Your task to perform on an android device: Open the calendar and show me this week's events? Image 0: 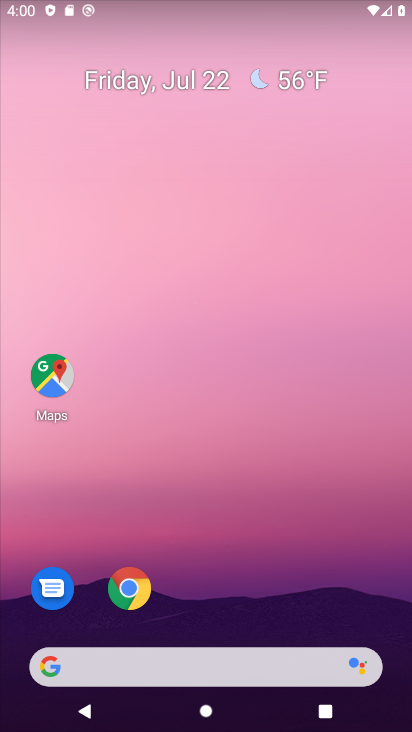
Step 0: drag from (233, 622) to (233, 111)
Your task to perform on an android device: Open the calendar and show me this week's events? Image 1: 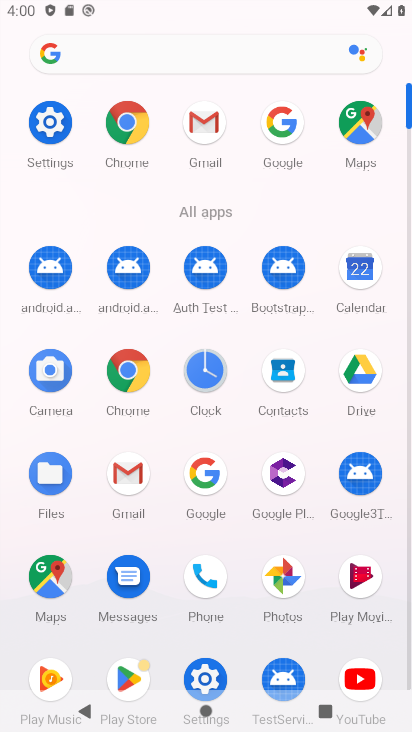
Step 1: click (354, 259)
Your task to perform on an android device: Open the calendar and show me this week's events? Image 2: 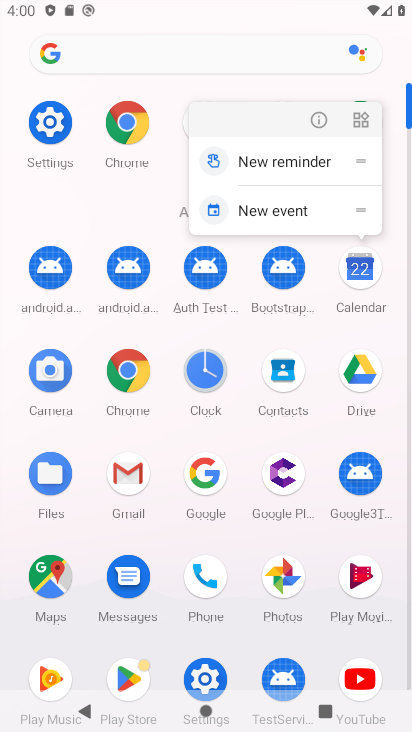
Step 2: click (351, 280)
Your task to perform on an android device: Open the calendar and show me this week's events? Image 3: 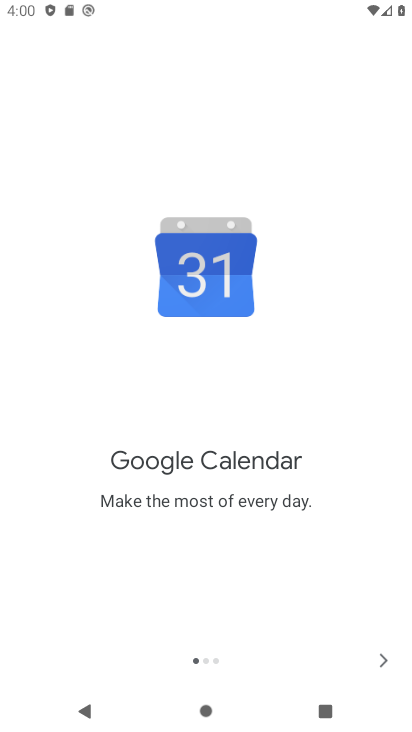
Step 3: click (374, 667)
Your task to perform on an android device: Open the calendar and show me this week's events? Image 4: 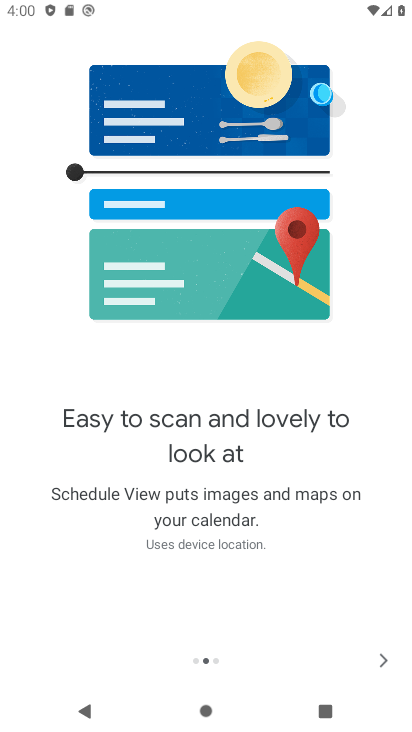
Step 4: click (374, 667)
Your task to perform on an android device: Open the calendar and show me this week's events? Image 5: 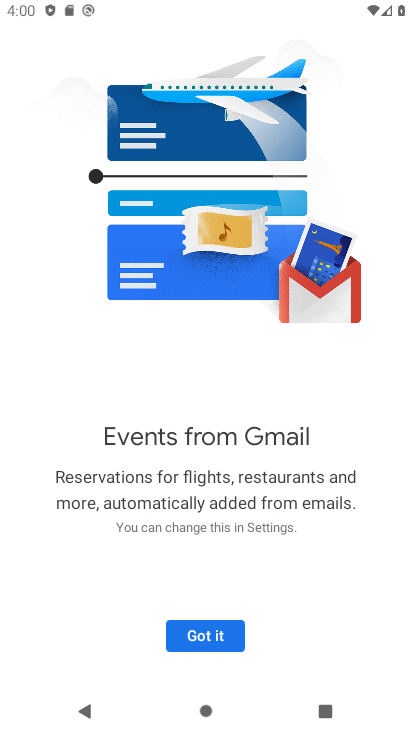
Step 5: click (204, 647)
Your task to perform on an android device: Open the calendar and show me this week's events? Image 6: 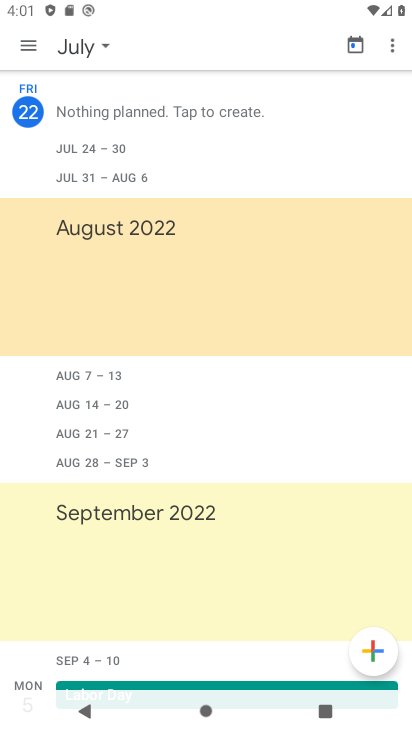
Step 6: click (107, 66)
Your task to perform on an android device: Open the calendar and show me this week's events? Image 7: 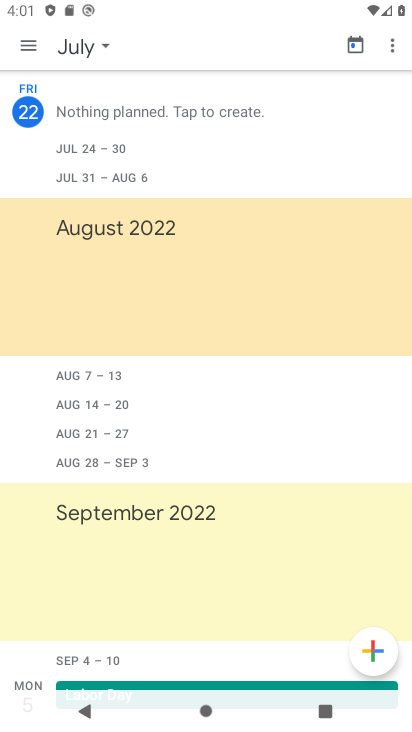
Step 7: click (91, 43)
Your task to perform on an android device: Open the calendar and show me this week's events? Image 8: 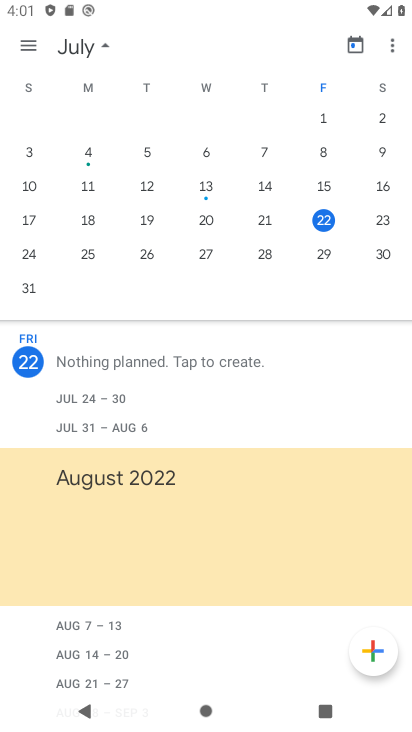
Step 8: click (370, 214)
Your task to perform on an android device: Open the calendar and show me this week's events? Image 9: 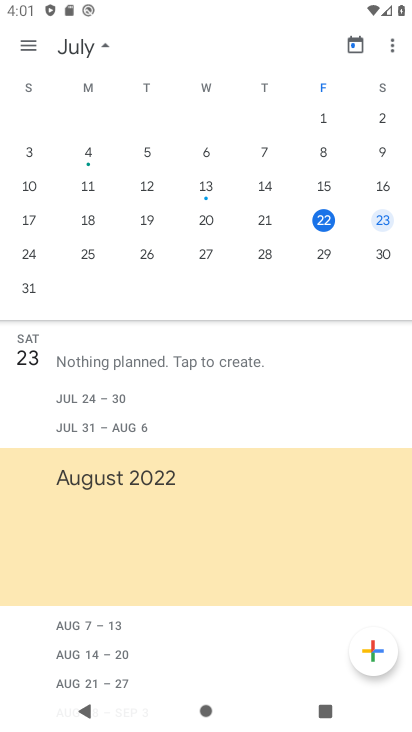
Step 9: task complete